Your task to perform on an android device: show emergency info Image 0: 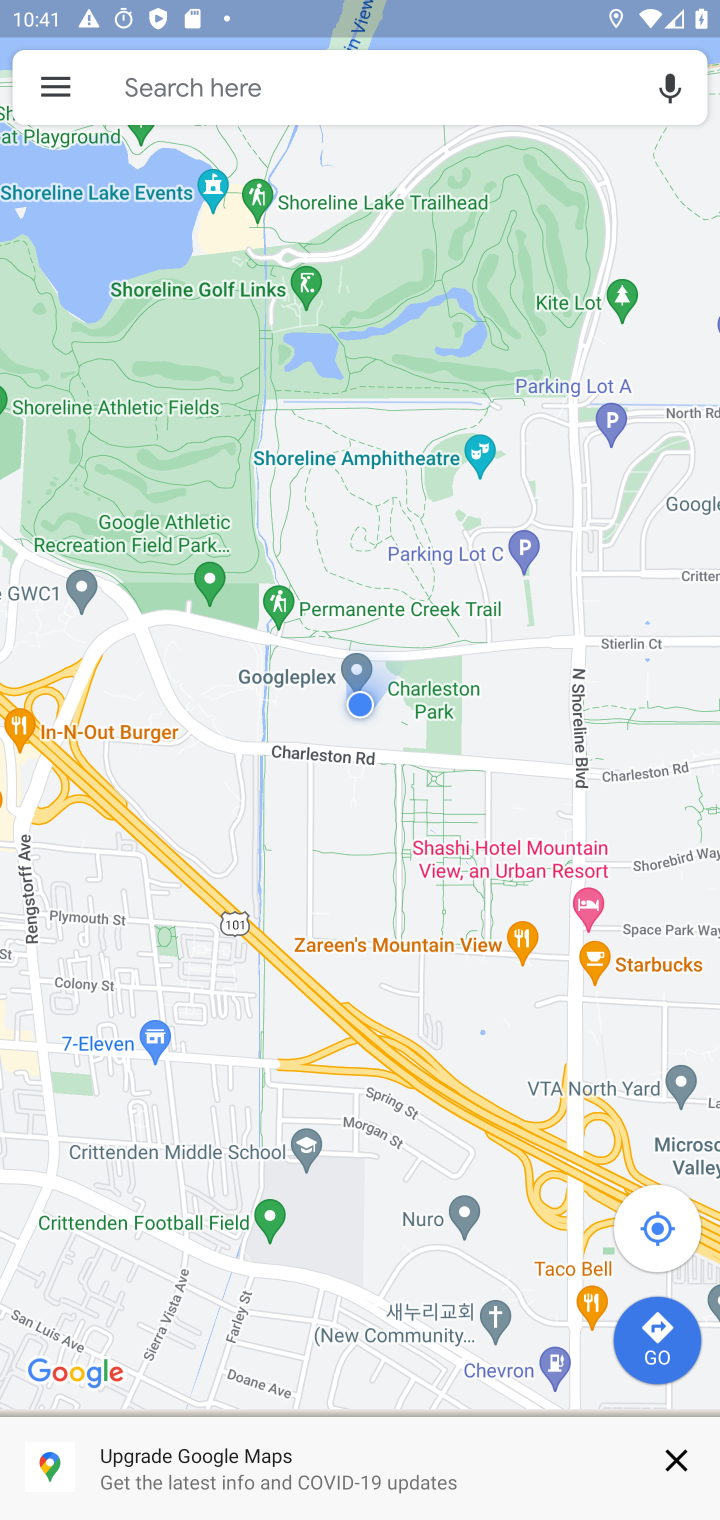
Step 0: press home button
Your task to perform on an android device: show emergency info Image 1: 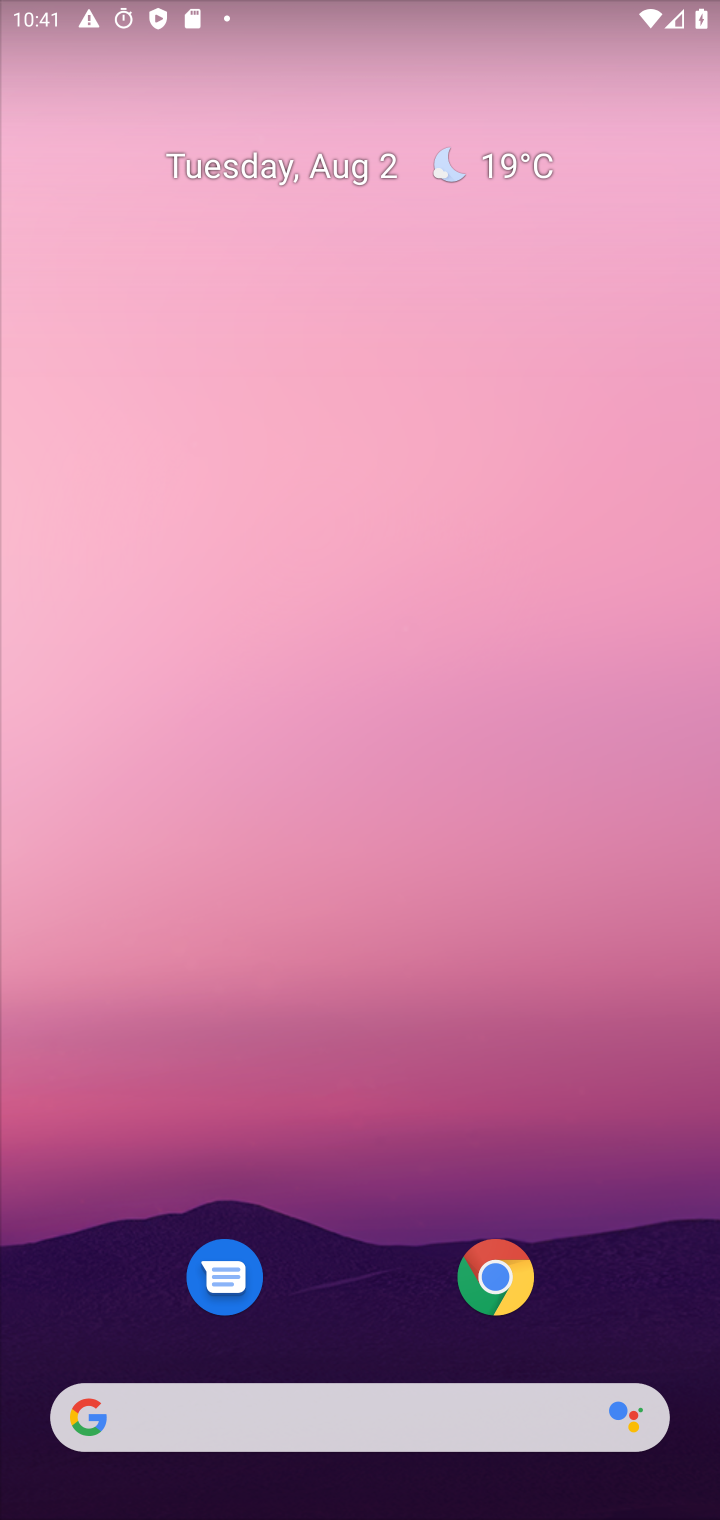
Step 1: drag from (386, 605) to (388, 310)
Your task to perform on an android device: show emergency info Image 2: 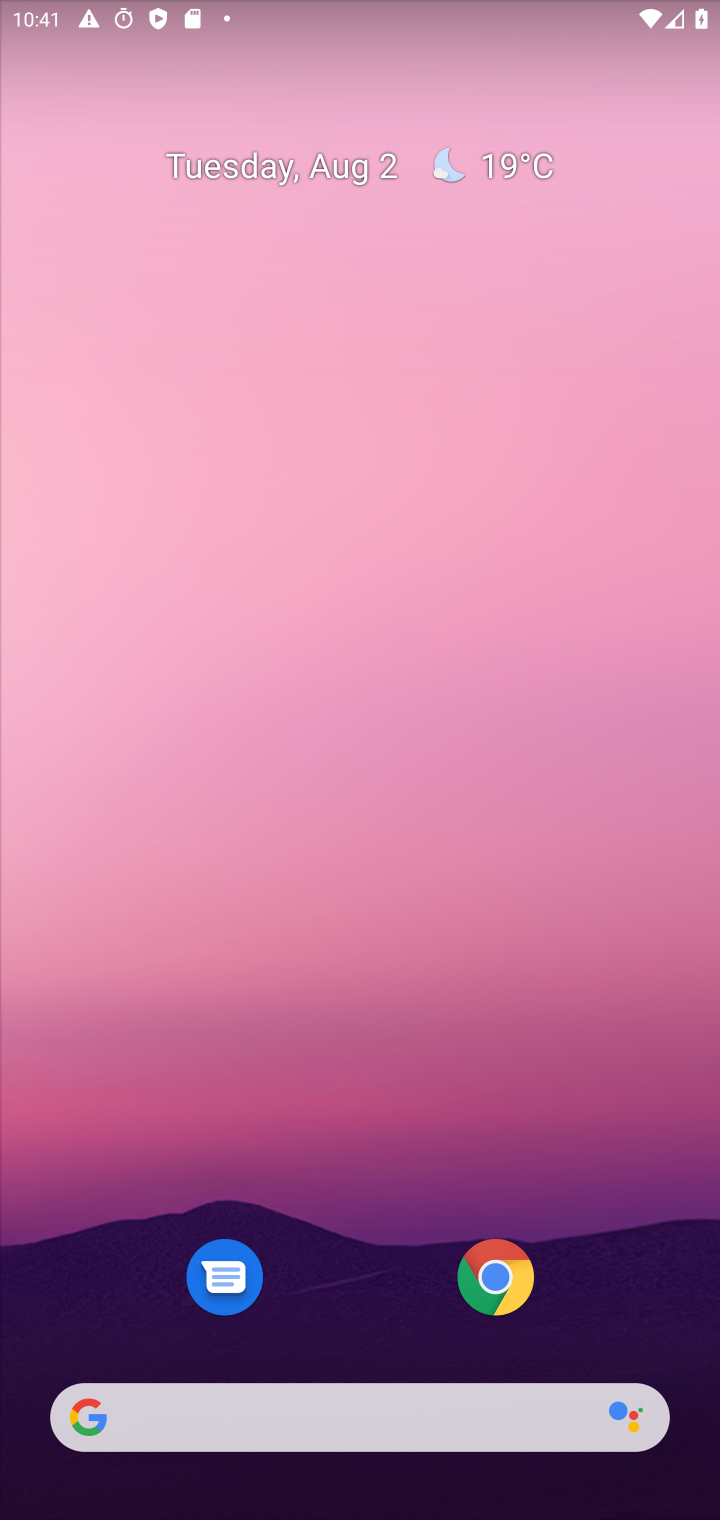
Step 2: drag from (368, 1231) to (348, 1)
Your task to perform on an android device: show emergency info Image 3: 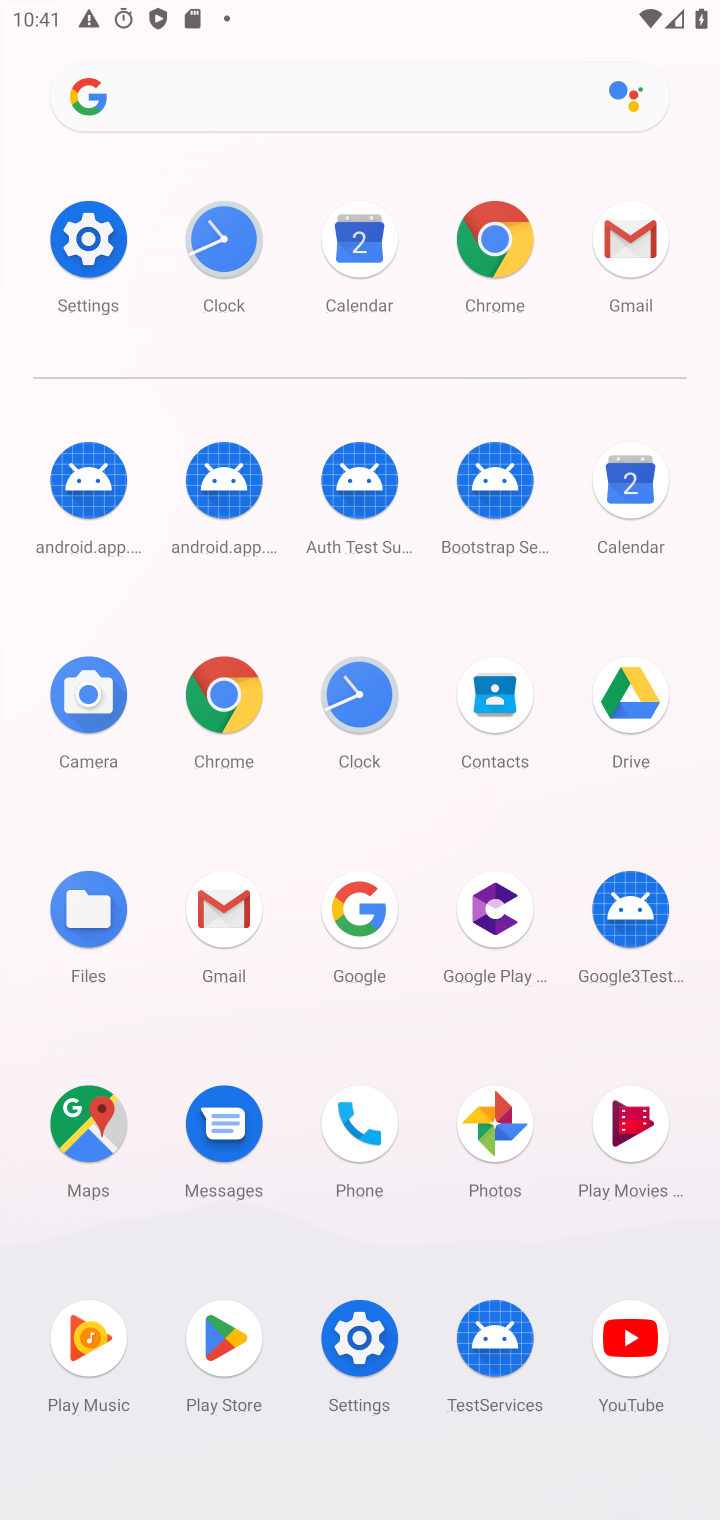
Step 3: click (369, 1331)
Your task to perform on an android device: show emergency info Image 4: 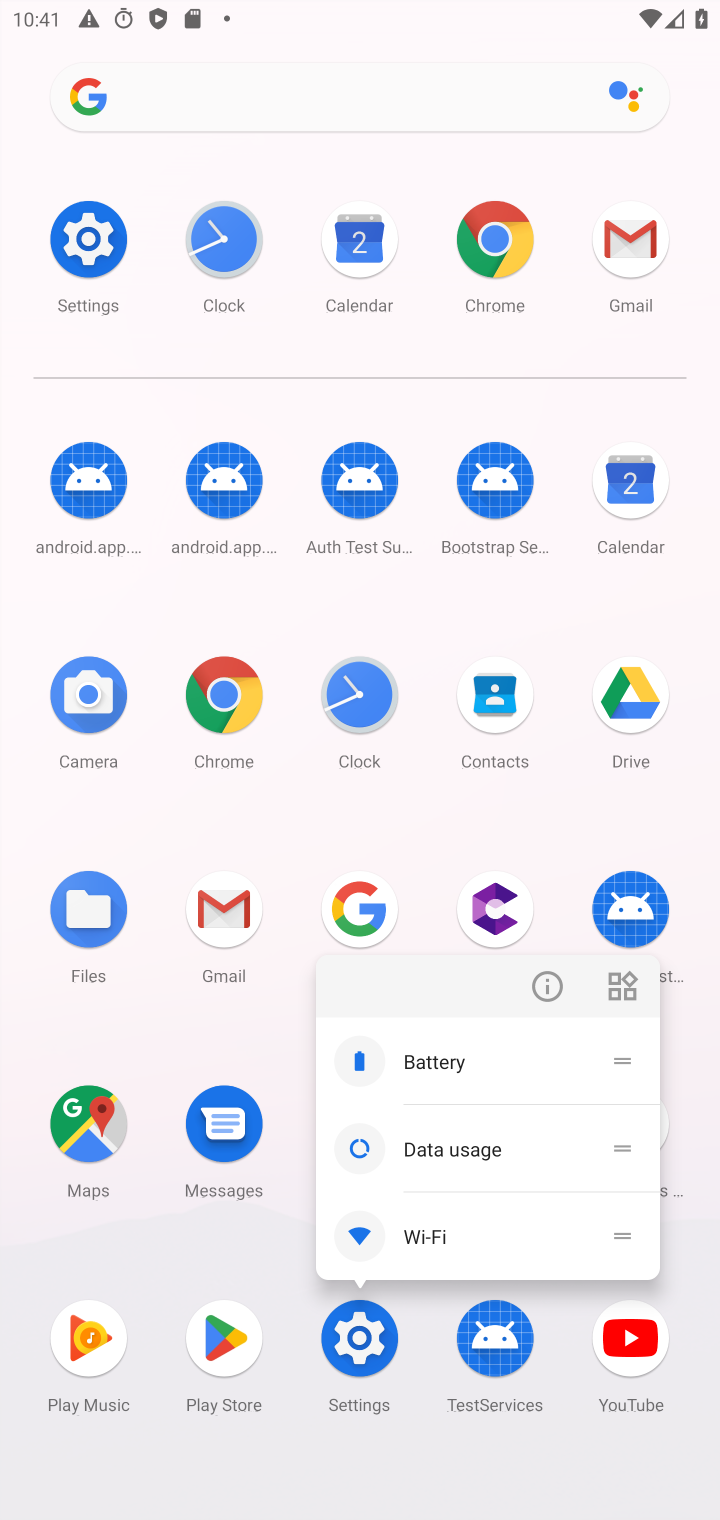
Step 4: click (373, 1338)
Your task to perform on an android device: show emergency info Image 5: 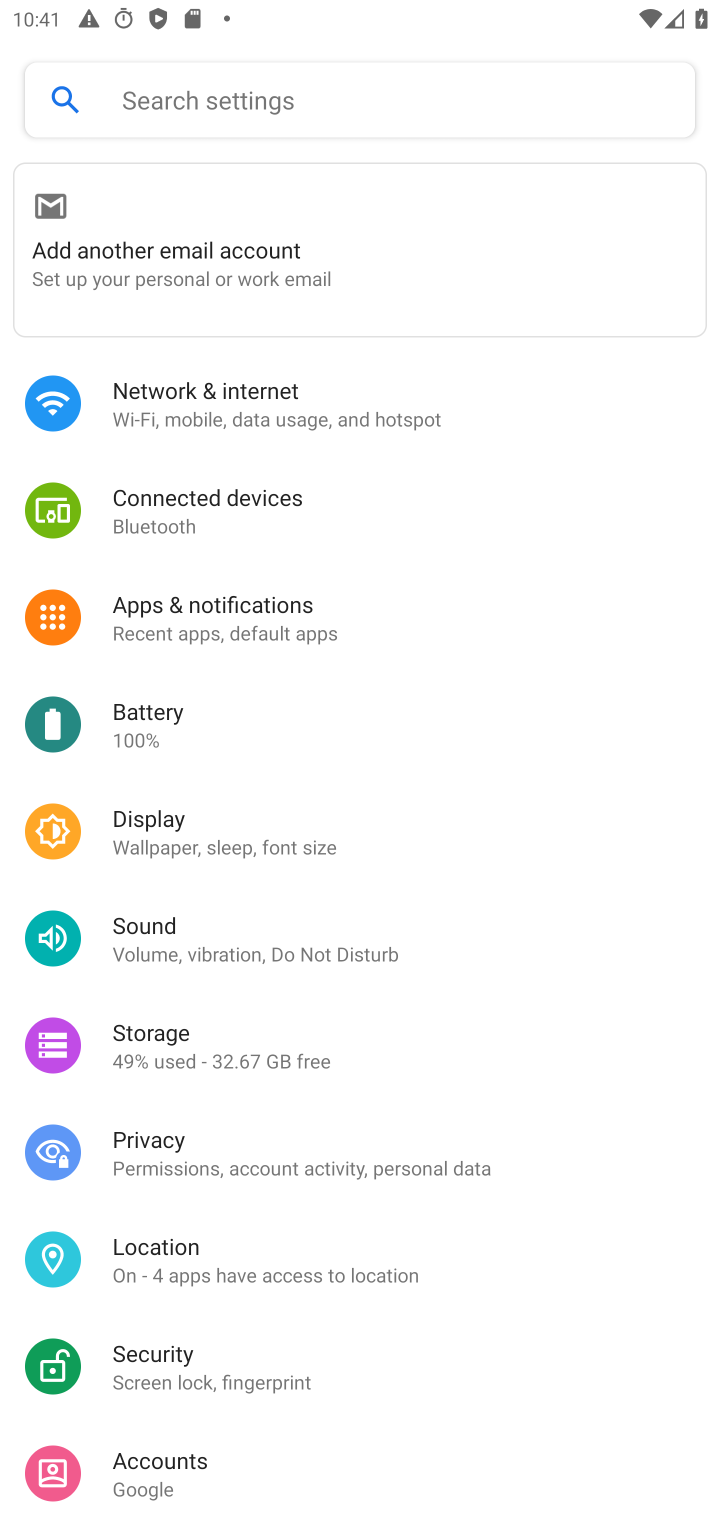
Step 5: drag from (291, 1246) to (187, 420)
Your task to perform on an android device: show emergency info Image 6: 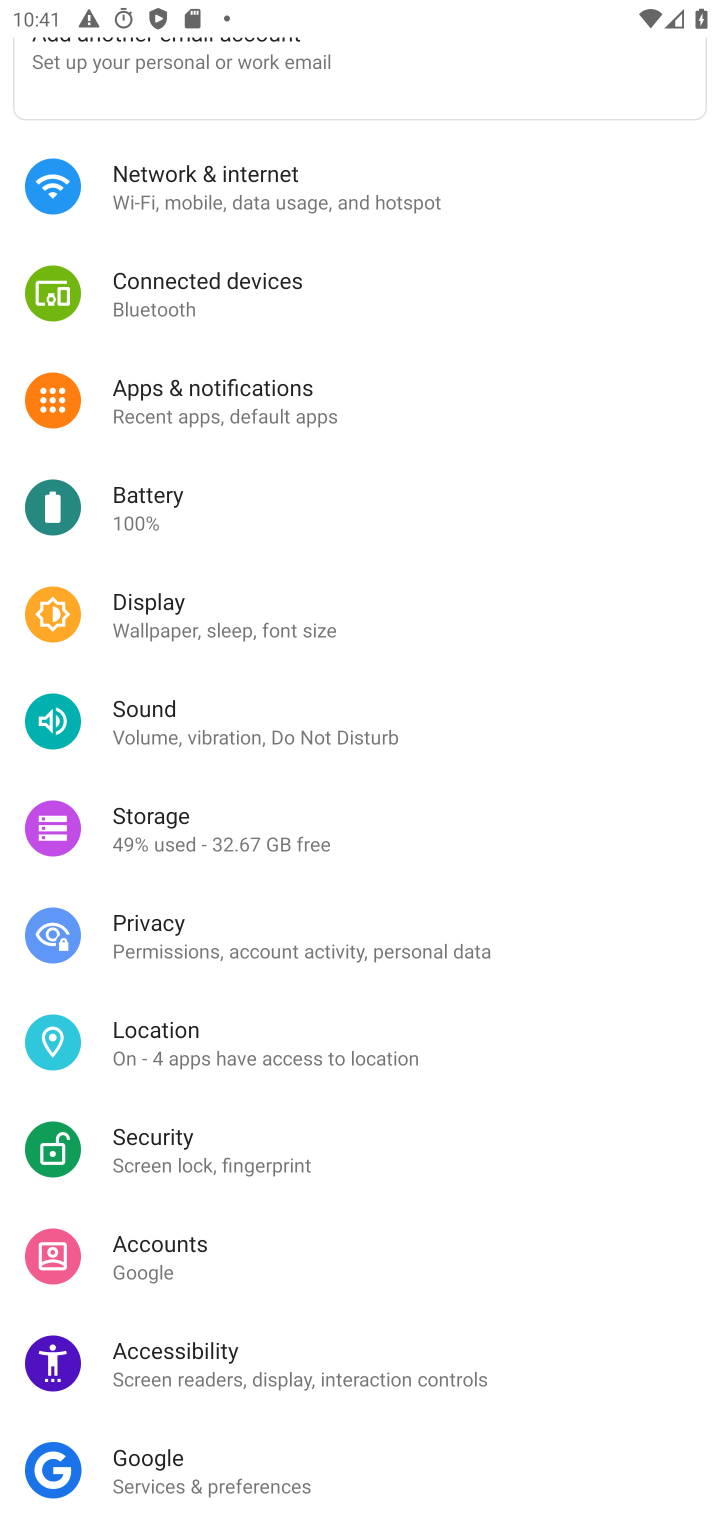
Step 6: drag from (238, 1424) to (293, 620)
Your task to perform on an android device: show emergency info Image 7: 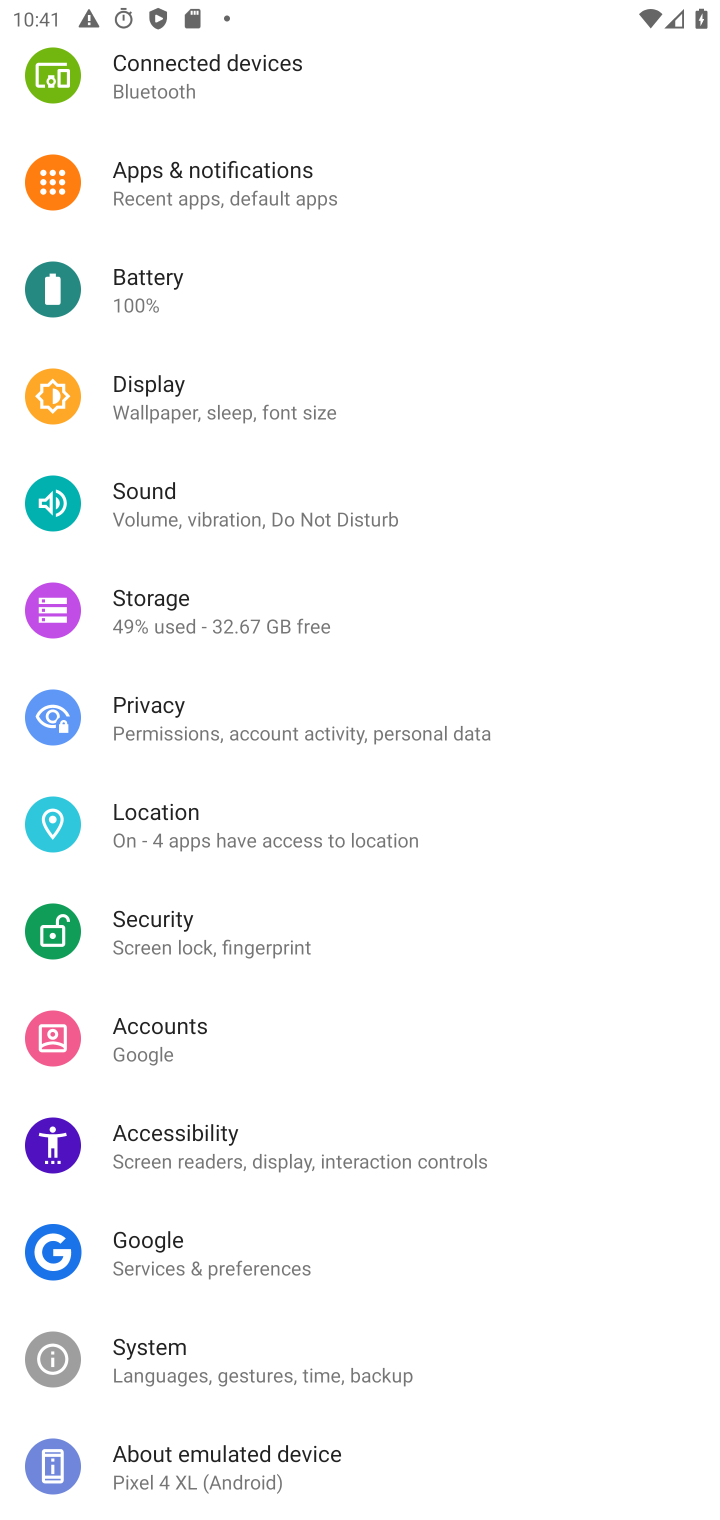
Step 7: click (229, 1469)
Your task to perform on an android device: show emergency info Image 8: 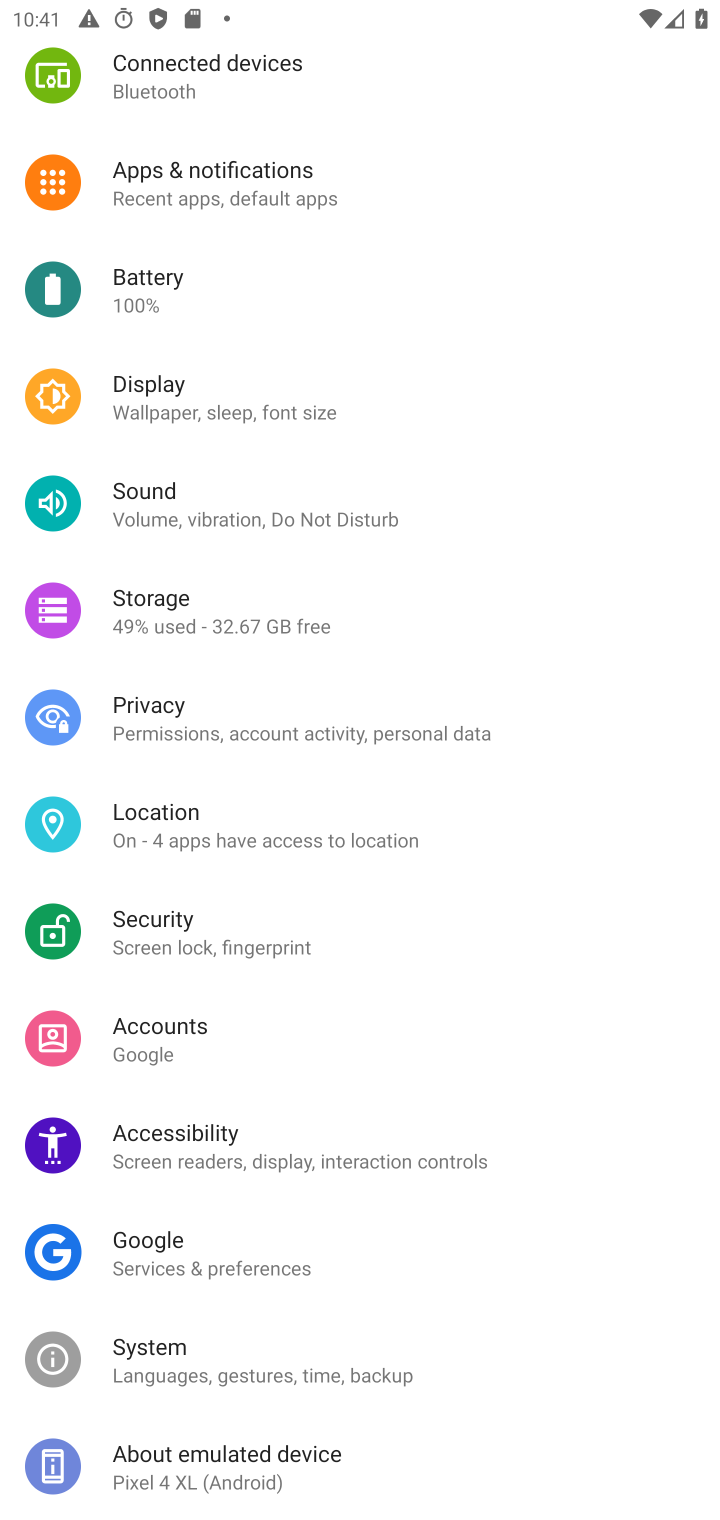
Step 8: drag from (238, 1349) to (487, 704)
Your task to perform on an android device: show emergency info Image 9: 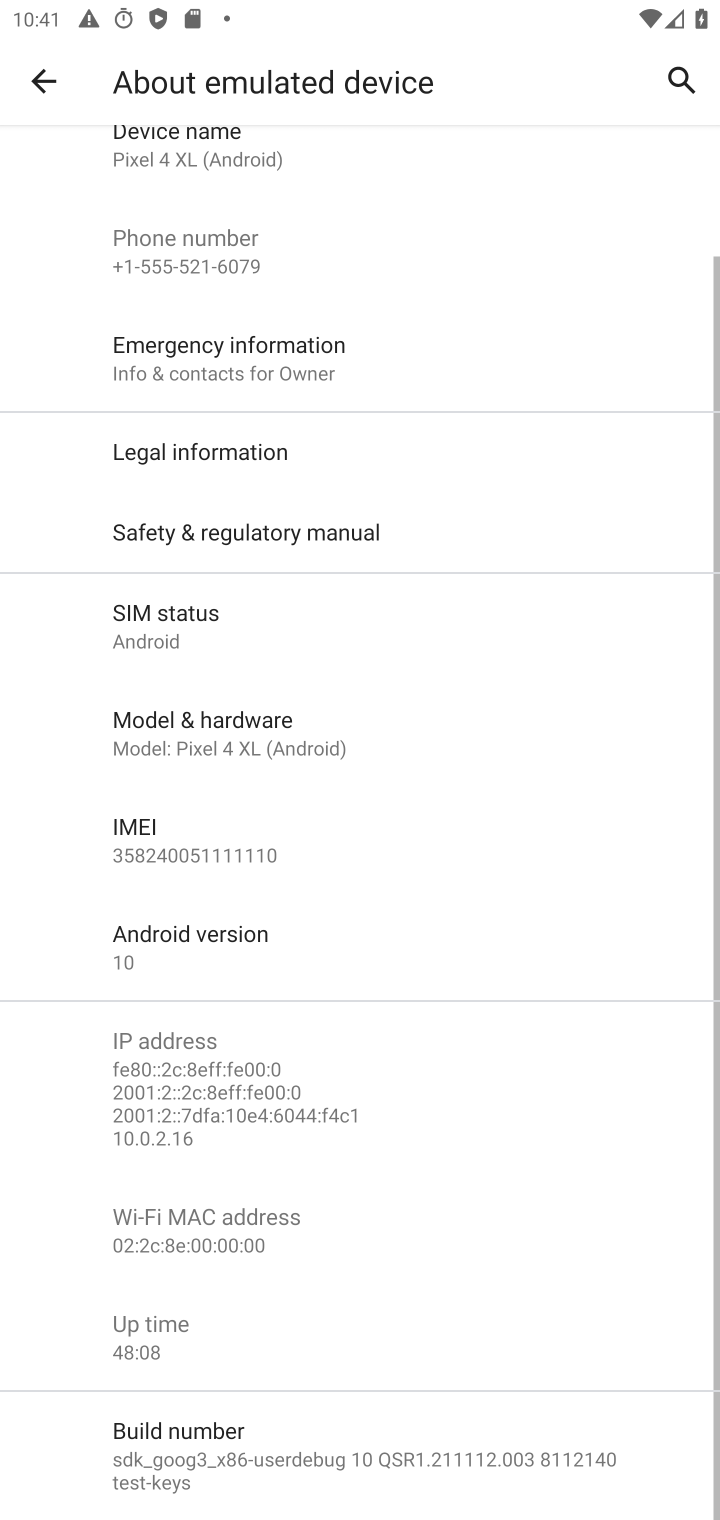
Step 9: click (183, 361)
Your task to perform on an android device: show emergency info Image 10: 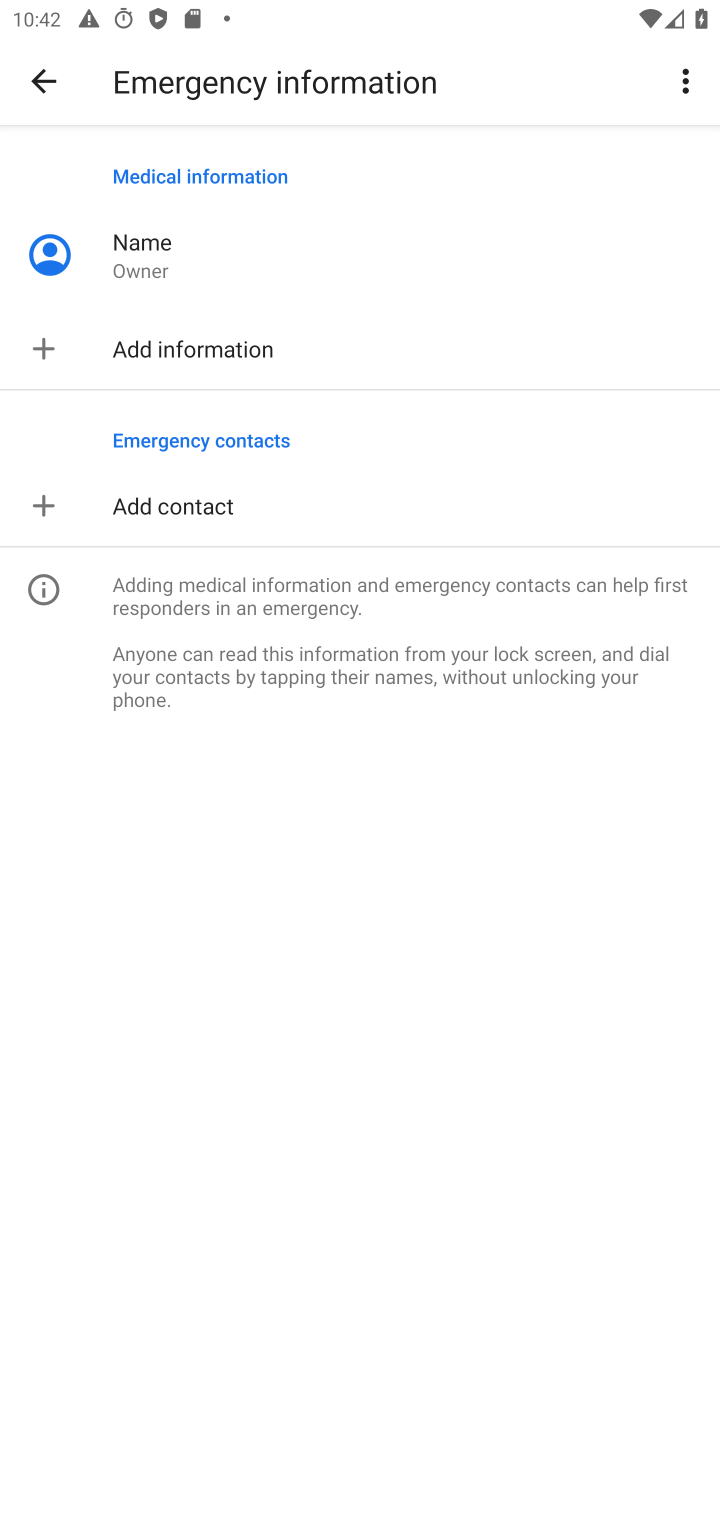
Step 10: click (40, 580)
Your task to perform on an android device: show emergency info Image 11: 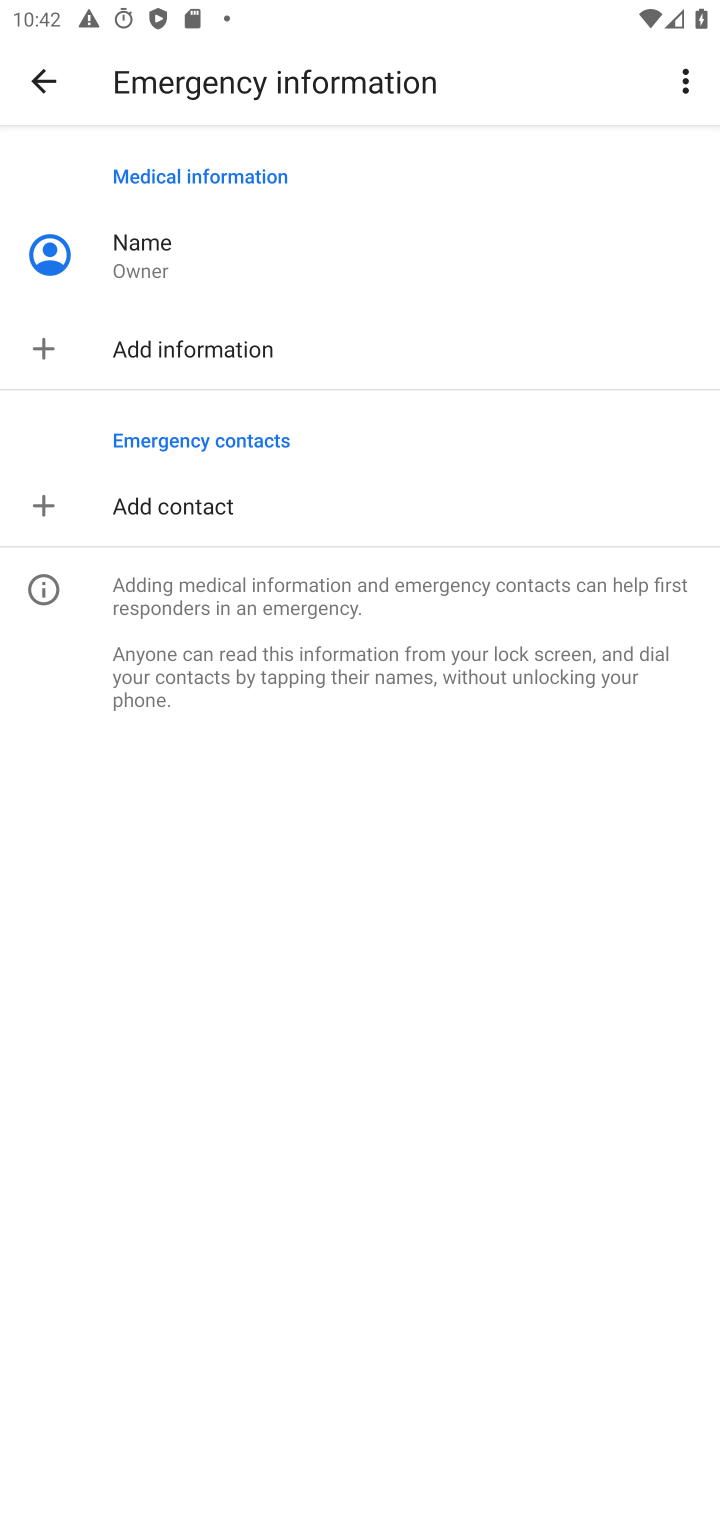
Step 11: task complete